Your task to perform on an android device: add a label to a message in the gmail app Image 0: 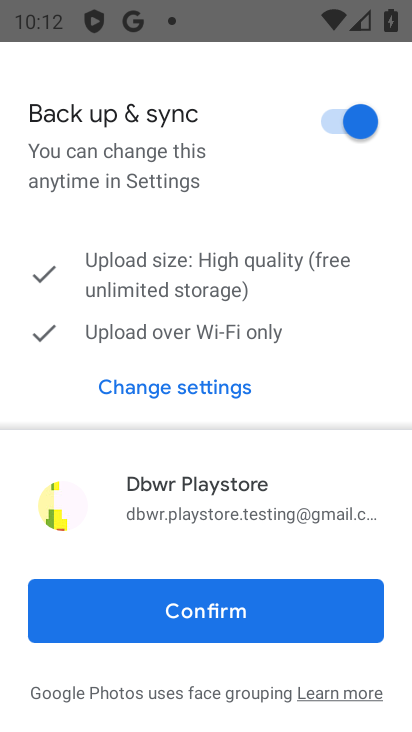
Step 0: press home button
Your task to perform on an android device: add a label to a message in the gmail app Image 1: 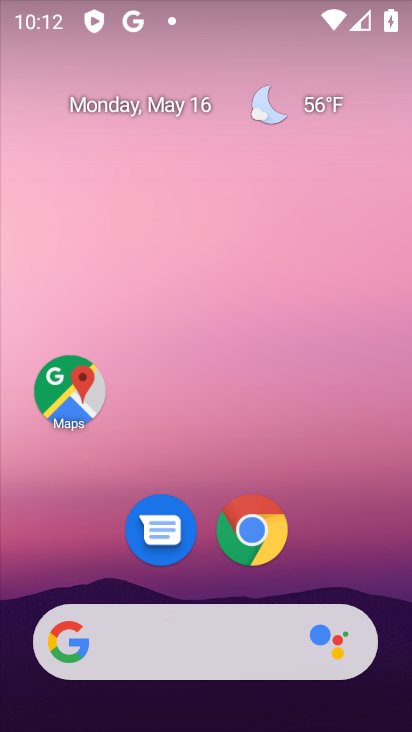
Step 1: drag from (383, 549) to (404, 96)
Your task to perform on an android device: add a label to a message in the gmail app Image 2: 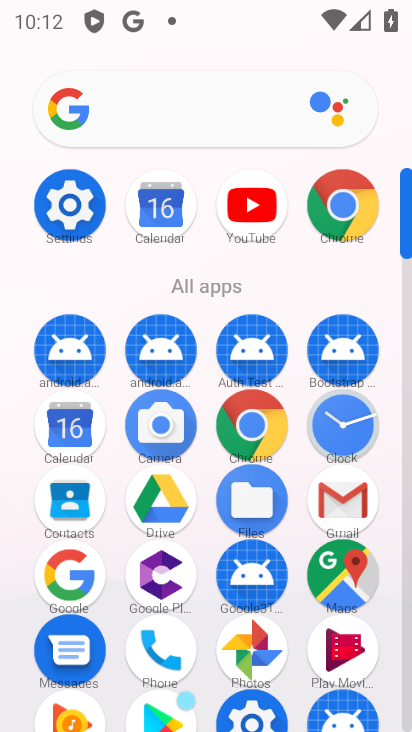
Step 2: click (358, 506)
Your task to perform on an android device: add a label to a message in the gmail app Image 3: 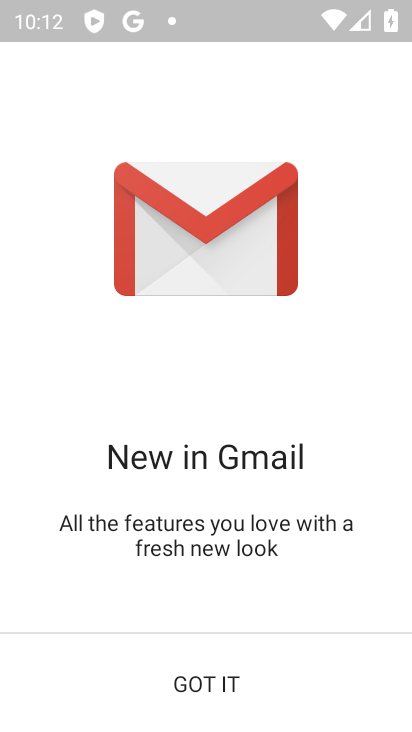
Step 3: click (209, 681)
Your task to perform on an android device: add a label to a message in the gmail app Image 4: 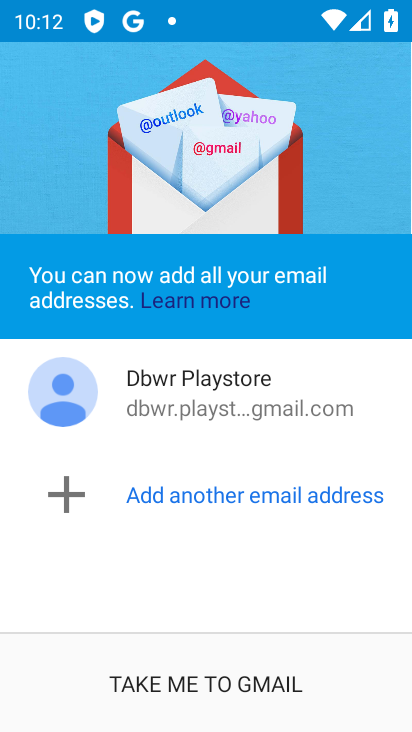
Step 4: click (209, 681)
Your task to perform on an android device: add a label to a message in the gmail app Image 5: 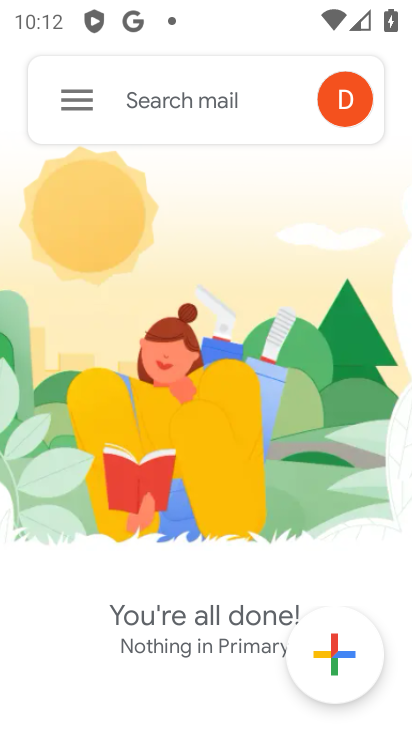
Step 5: click (76, 107)
Your task to perform on an android device: add a label to a message in the gmail app Image 6: 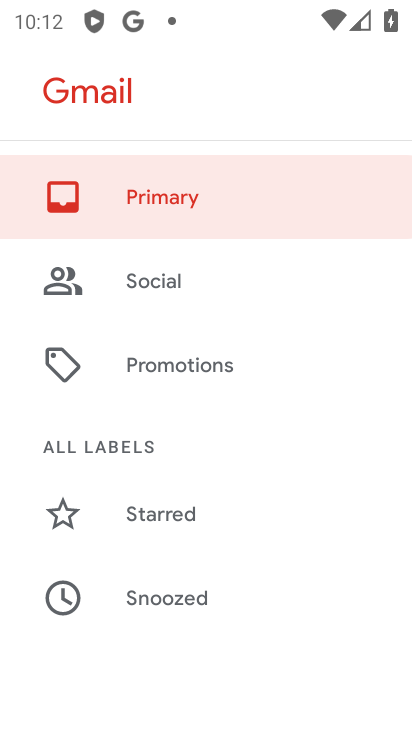
Step 6: drag from (307, 531) to (351, 354)
Your task to perform on an android device: add a label to a message in the gmail app Image 7: 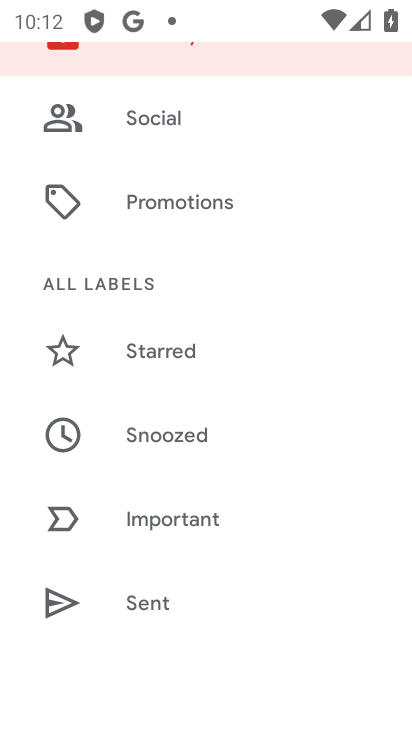
Step 7: drag from (318, 594) to (337, 407)
Your task to perform on an android device: add a label to a message in the gmail app Image 8: 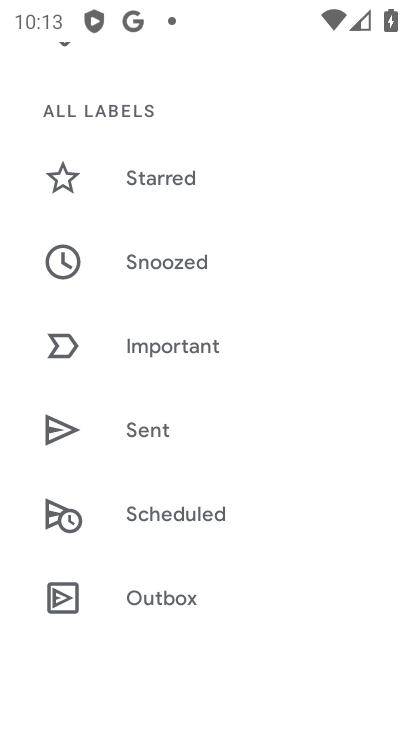
Step 8: drag from (317, 597) to (314, 491)
Your task to perform on an android device: add a label to a message in the gmail app Image 9: 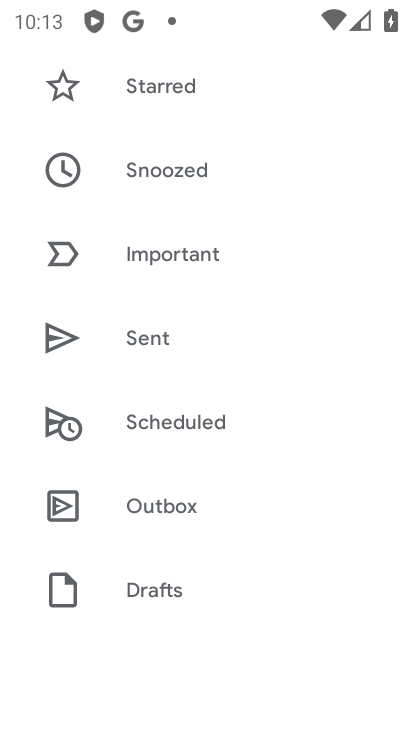
Step 9: drag from (313, 565) to (314, 437)
Your task to perform on an android device: add a label to a message in the gmail app Image 10: 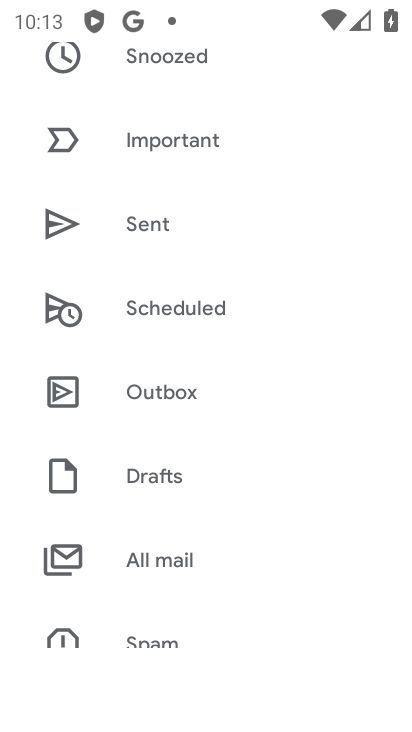
Step 10: drag from (338, 570) to (324, 457)
Your task to perform on an android device: add a label to a message in the gmail app Image 11: 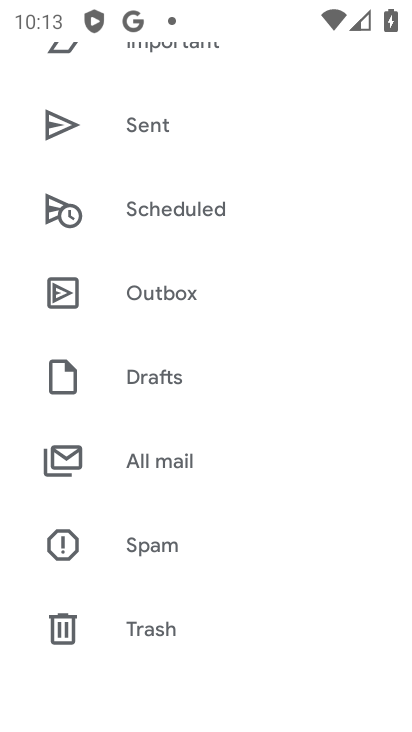
Step 11: drag from (348, 551) to (342, 490)
Your task to perform on an android device: add a label to a message in the gmail app Image 12: 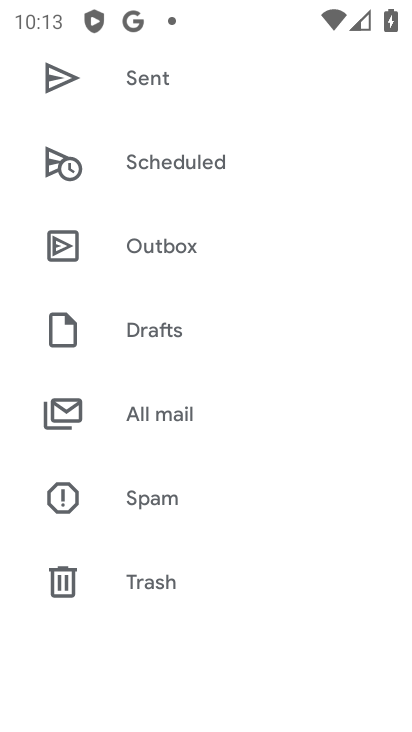
Step 12: drag from (341, 572) to (339, 489)
Your task to perform on an android device: add a label to a message in the gmail app Image 13: 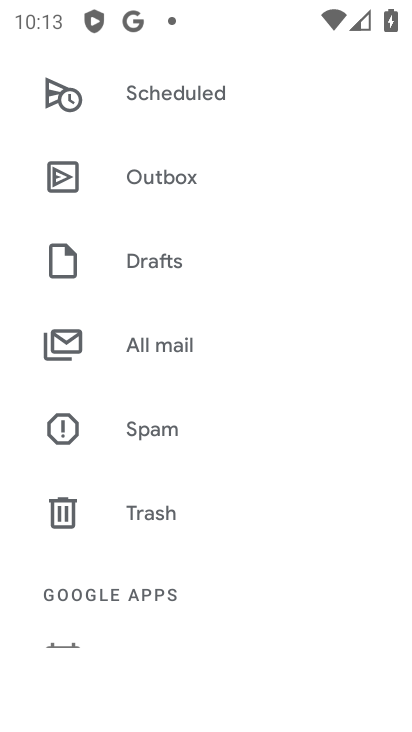
Step 13: click (339, 571)
Your task to perform on an android device: add a label to a message in the gmail app Image 14: 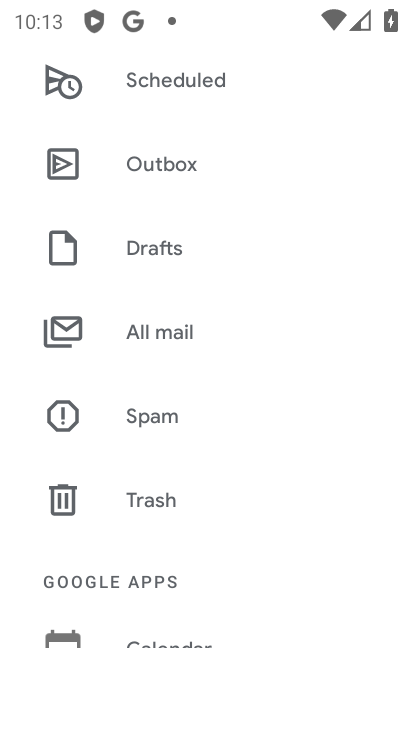
Step 14: drag from (325, 615) to (323, 559)
Your task to perform on an android device: add a label to a message in the gmail app Image 15: 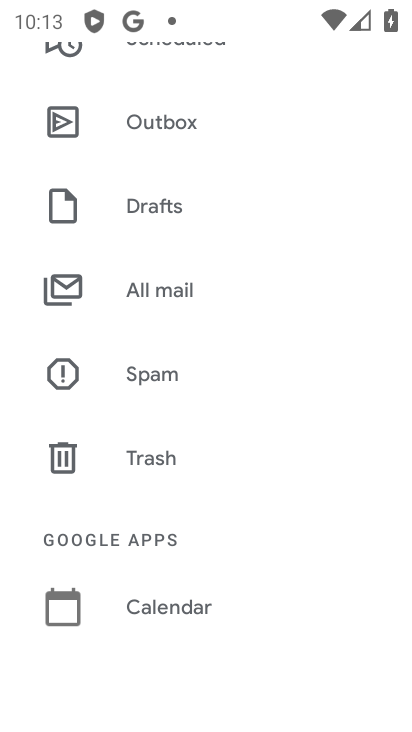
Step 15: drag from (317, 600) to (300, 535)
Your task to perform on an android device: add a label to a message in the gmail app Image 16: 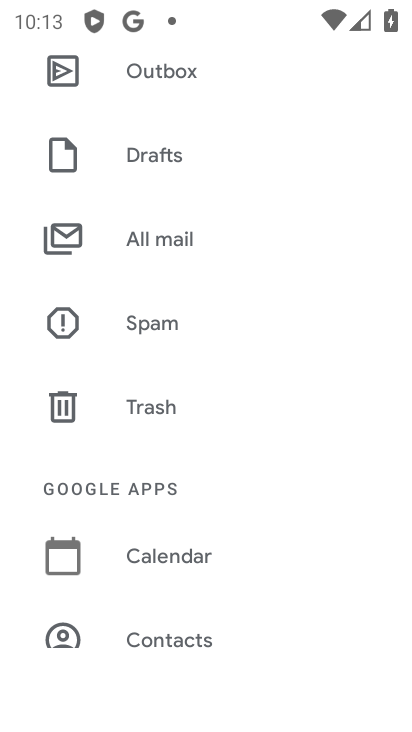
Step 16: drag from (302, 597) to (296, 537)
Your task to perform on an android device: add a label to a message in the gmail app Image 17: 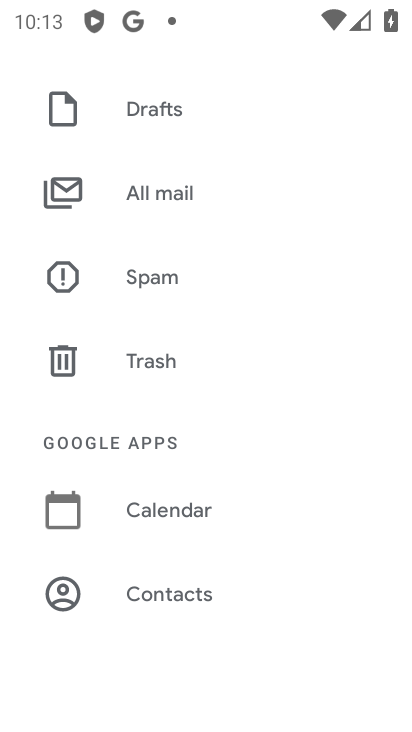
Step 17: drag from (308, 608) to (312, 534)
Your task to perform on an android device: add a label to a message in the gmail app Image 18: 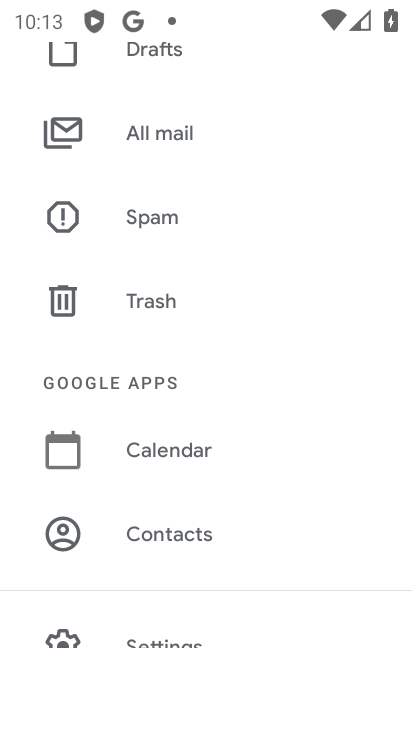
Step 18: drag from (299, 614) to (293, 577)
Your task to perform on an android device: add a label to a message in the gmail app Image 19: 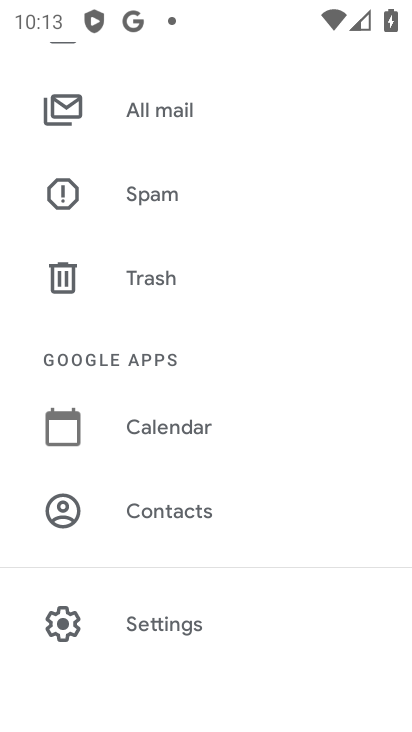
Step 19: drag from (283, 609) to (274, 567)
Your task to perform on an android device: add a label to a message in the gmail app Image 20: 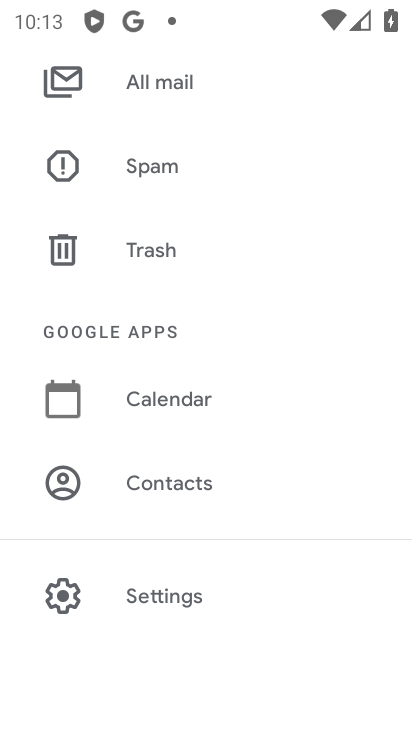
Step 20: drag from (308, 597) to (321, 450)
Your task to perform on an android device: add a label to a message in the gmail app Image 21: 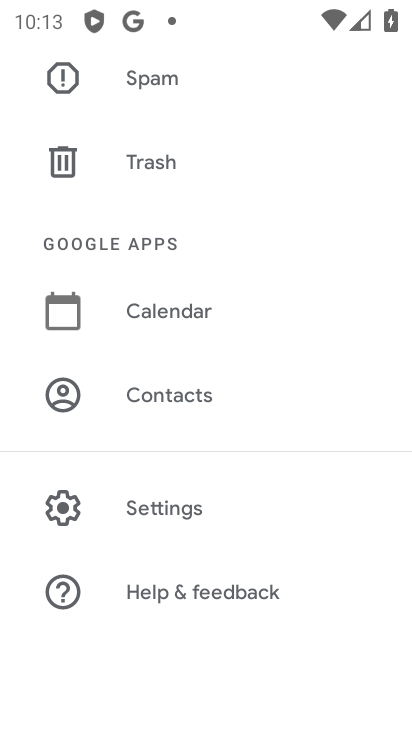
Step 21: drag from (325, 319) to (325, 488)
Your task to perform on an android device: add a label to a message in the gmail app Image 22: 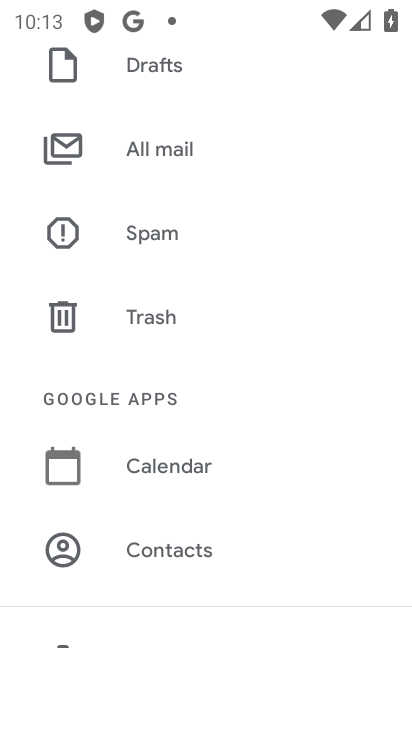
Step 22: drag from (320, 245) to (324, 413)
Your task to perform on an android device: add a label to a message in the gmail app Image 23: 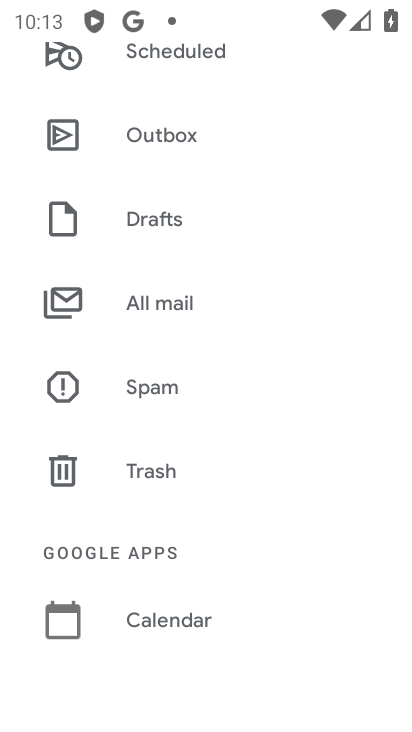
Step 23: drag from (325, 182) to (347, 388)
Your task to perform on an android device: add a label to a message in the gmail app Image 24: 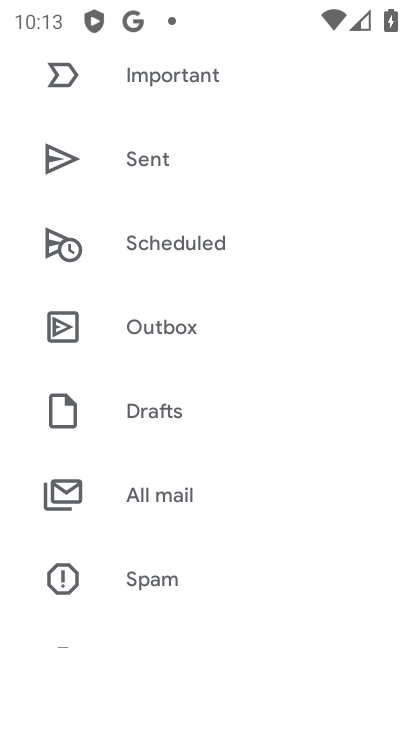
Step 24: drag from (330, 188) to (324, 369)
Your task to perform on an android device: add a label to a message in the gmail app Image 25: 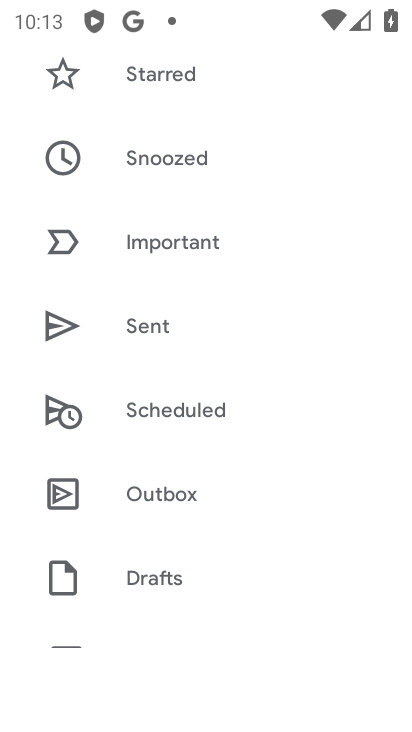
Step 25: drag from (303, 171) to (295, 361)
Your task to perform on an android device: add a label to a message in the gmail app Image 26: 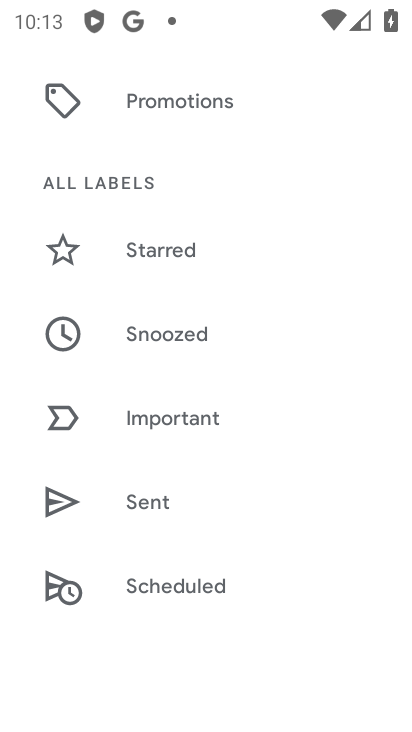
Step 26: drag from (302, 174) to (307, 349)
Your task to perform on an android device: add a label to a message in the gmail app Image 27: 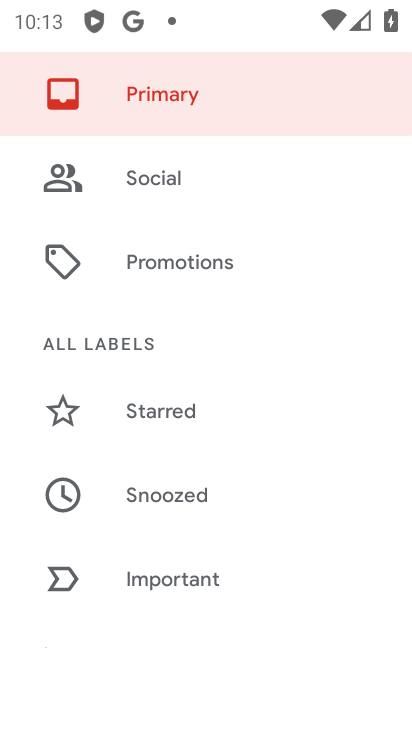
Step 27: click (195, 99)
Your task to perform on an android device: add a label to a message in the gmail app Image 28: 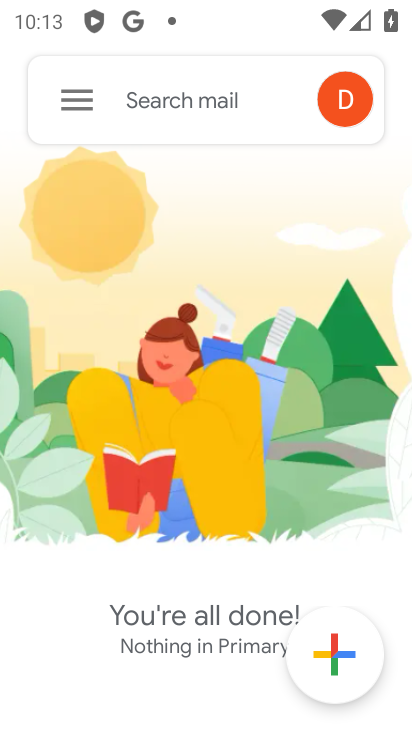
Step 28: task complete